Your task to perform on an android device: toggle notifications settings in the gmail app Image 0: 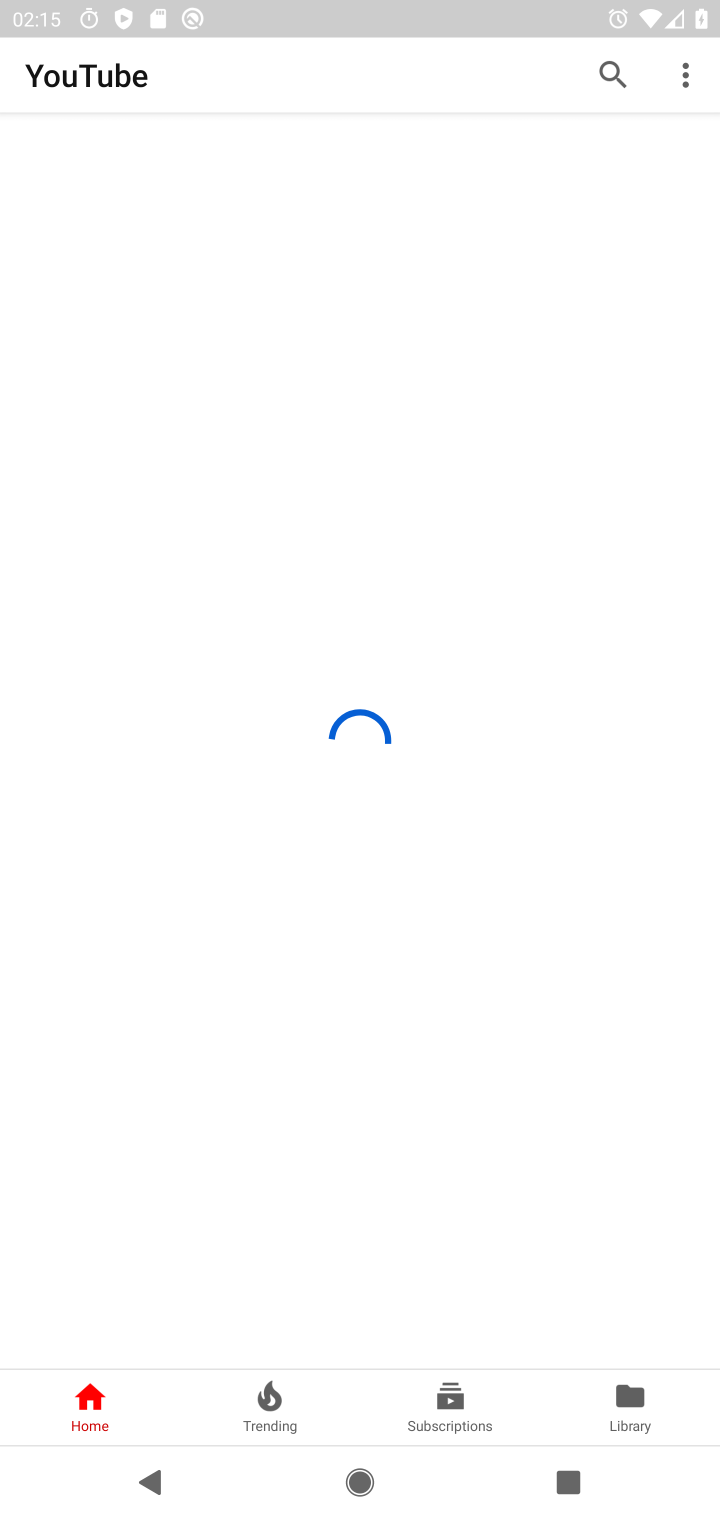
Step 0: press home button
Your task to perform on an android device: toggle notifications settings in the gmail app Image 1: 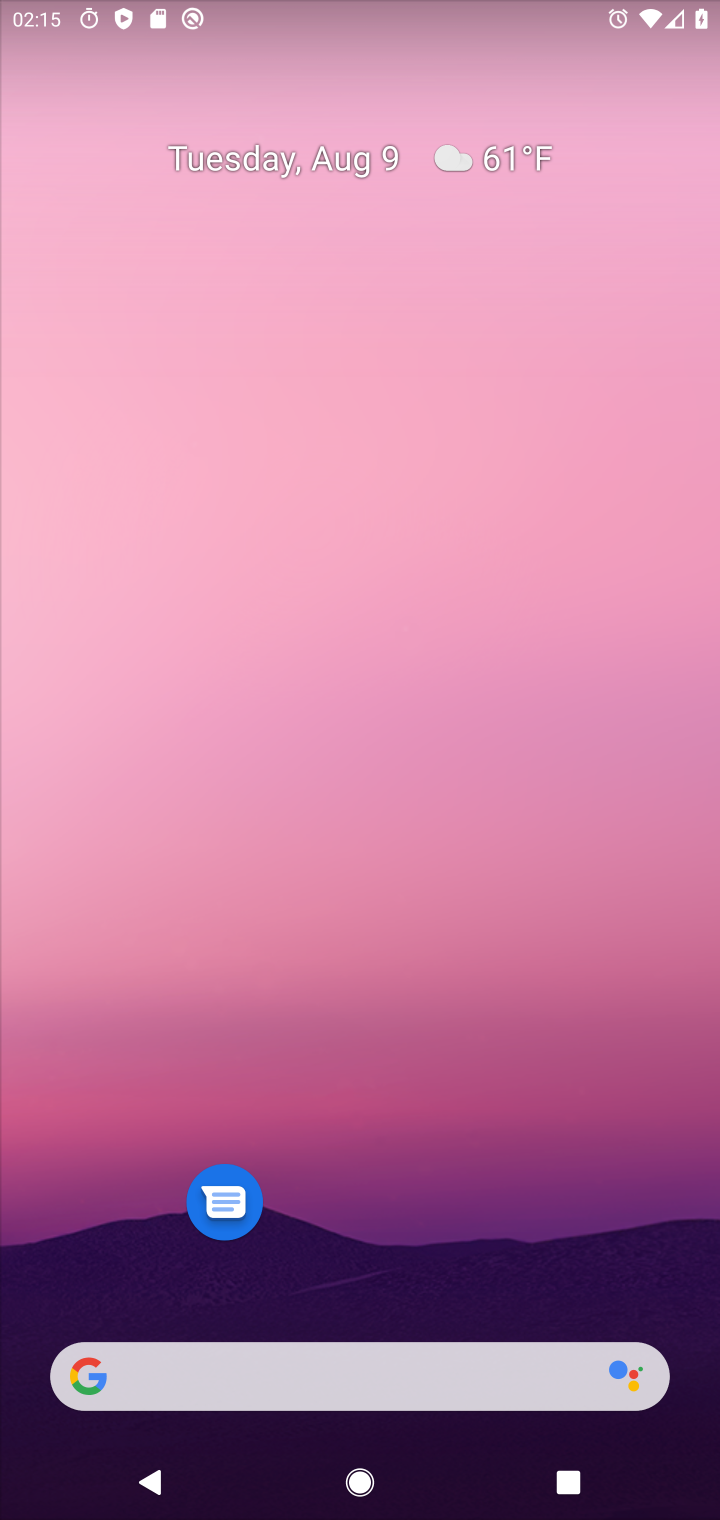
Step 1: press home button
Your task to perform on an android device: toggle notifications settings in the gmail app Image 2: 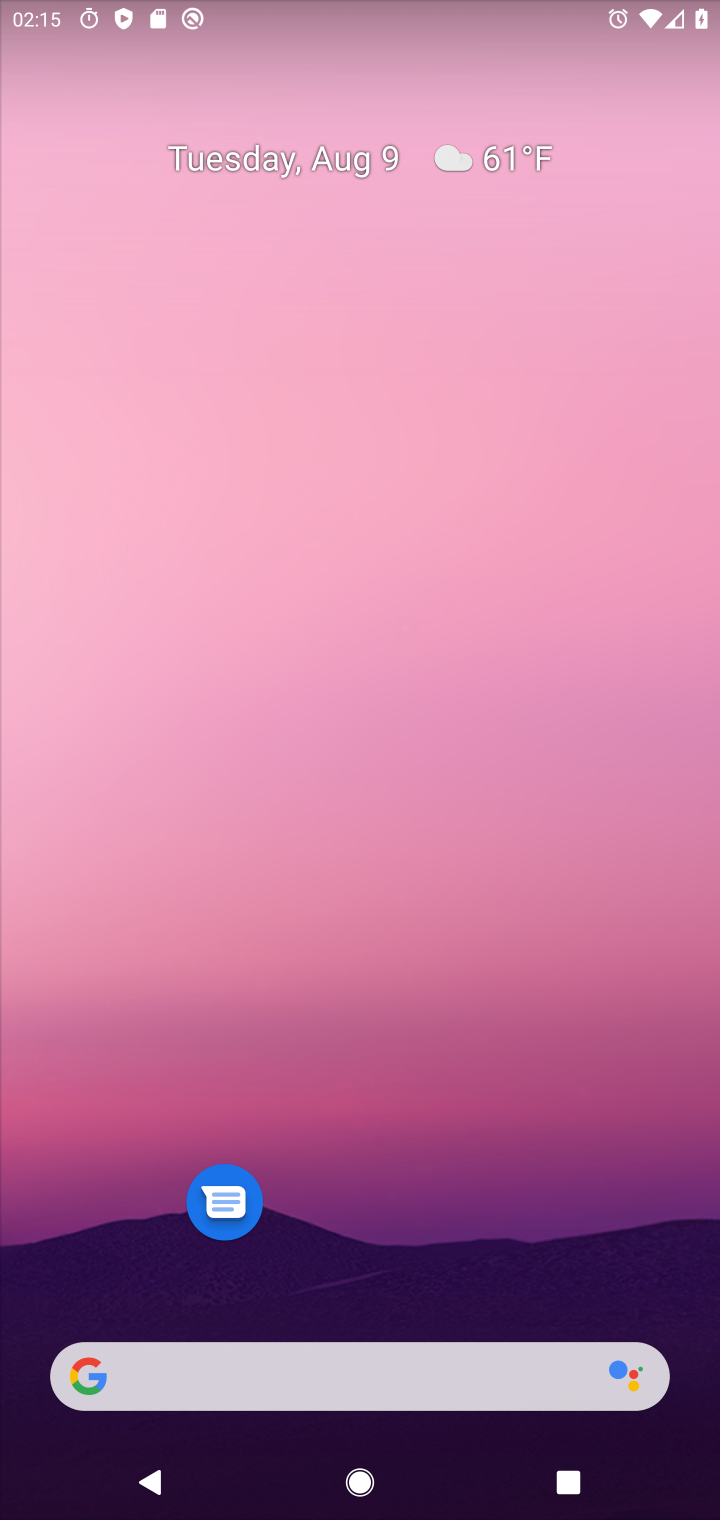
Step 2: drag from (325, 1348) to (353, 1096)
Your task to perform on an android device: toggle notifications settings in the gmail app Image 3: 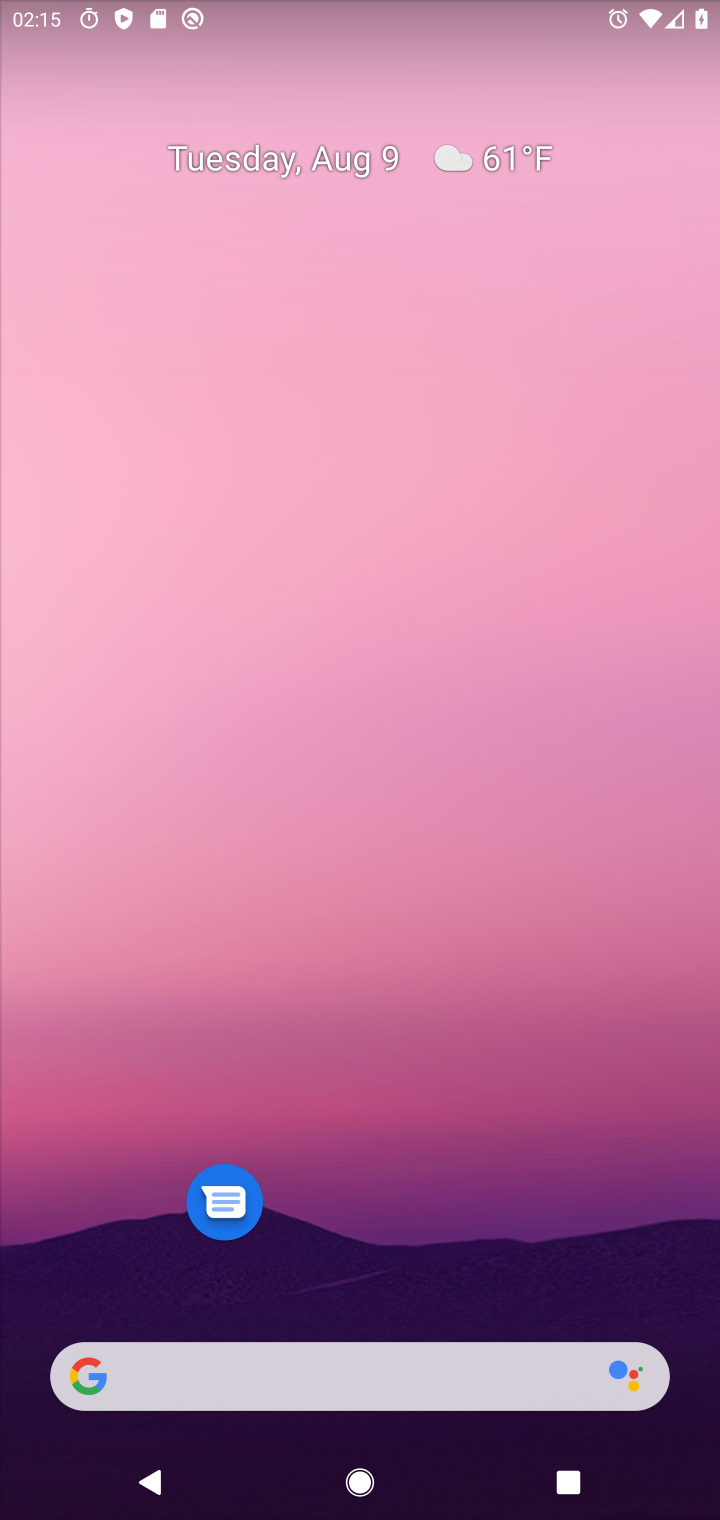
Step 3: drag from (319, 1365) to (291, 38)
Your task to perform on an android device: toggle notifications settings in the gmail app Image 4: 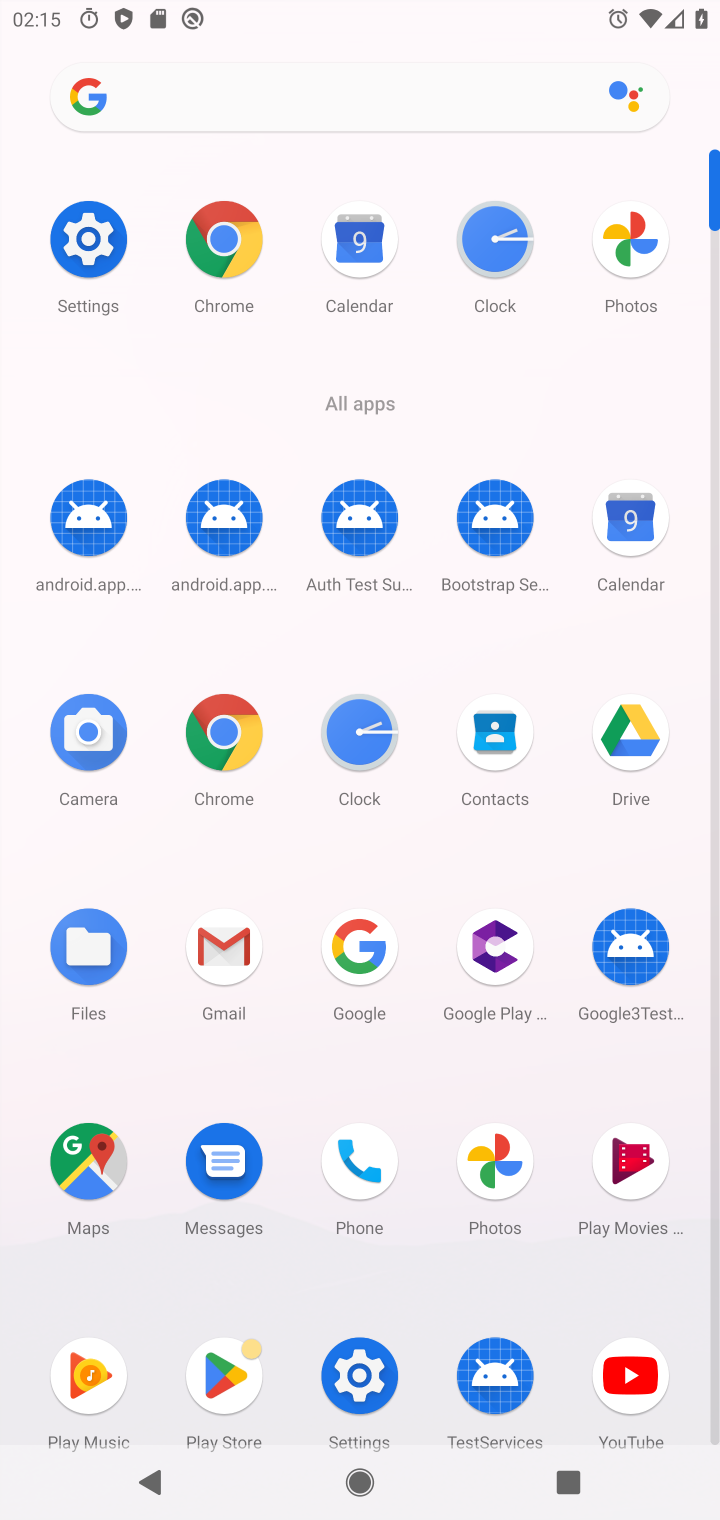
Step 4: click (215, 961)
Your task to perform on an android device: toggle notifications settings in the gmail app Image 5: 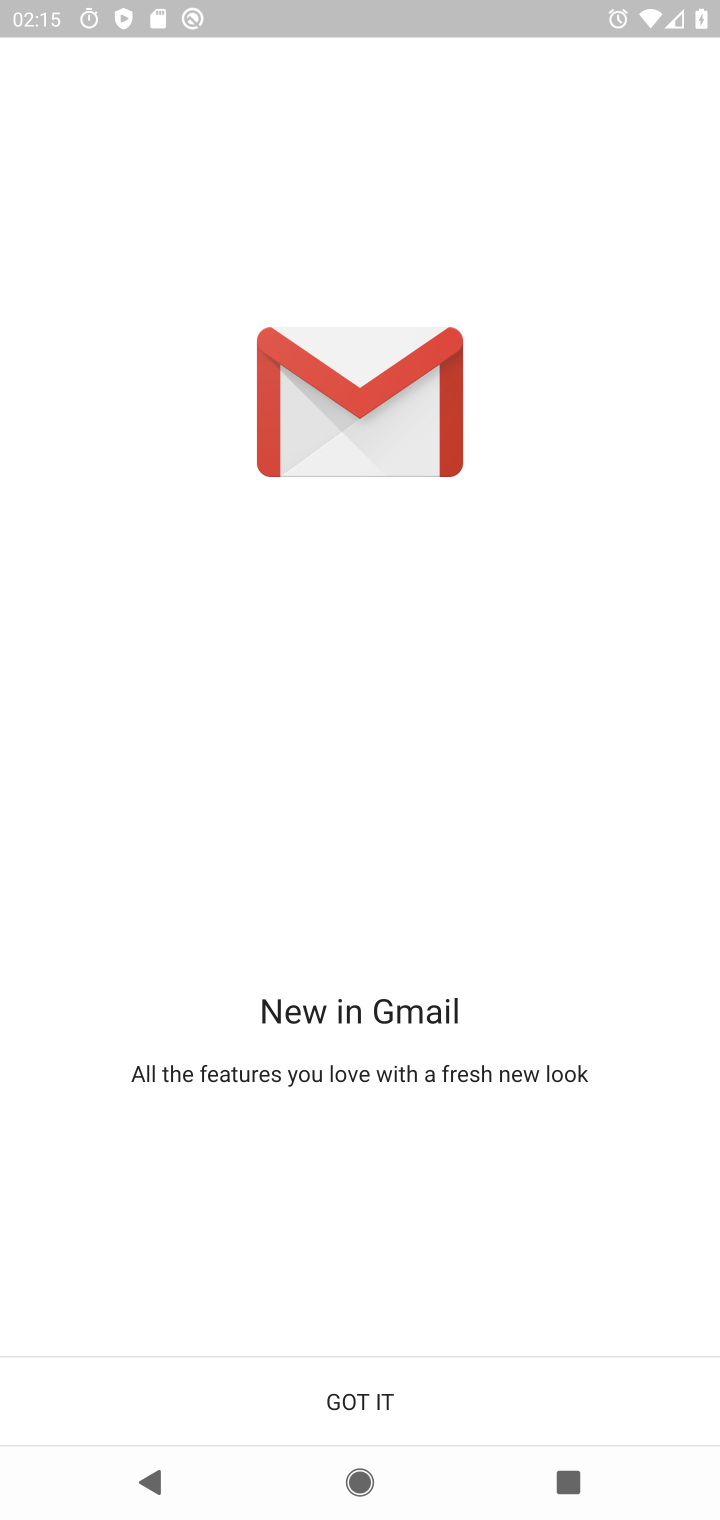
Step 5: click (292, 1406)
Your task to perform on an android device: toggle notifications settings in the gmail app Image 6: 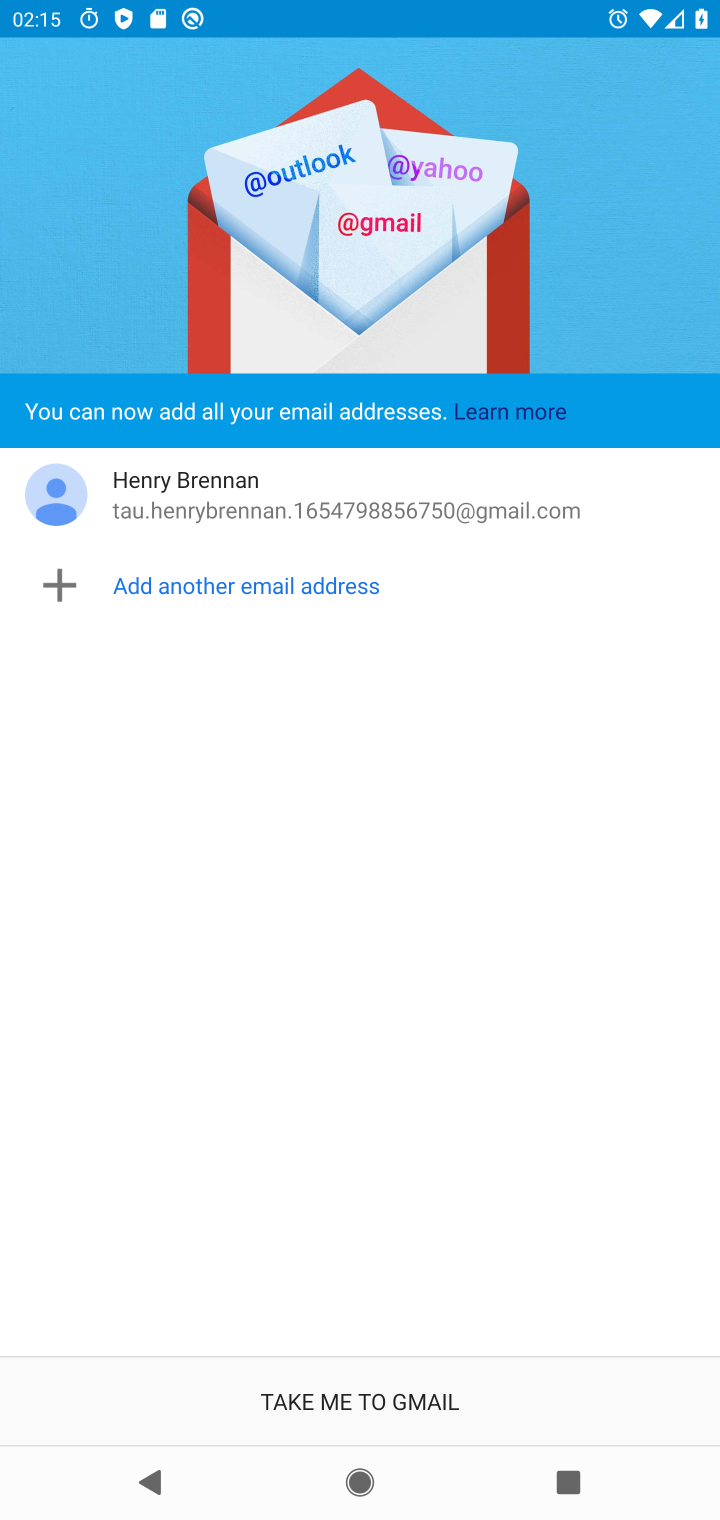
Step 6: click (292, 1406)
Your task to perform on an android device: toggle notifications settings in the gmail app Image 7: 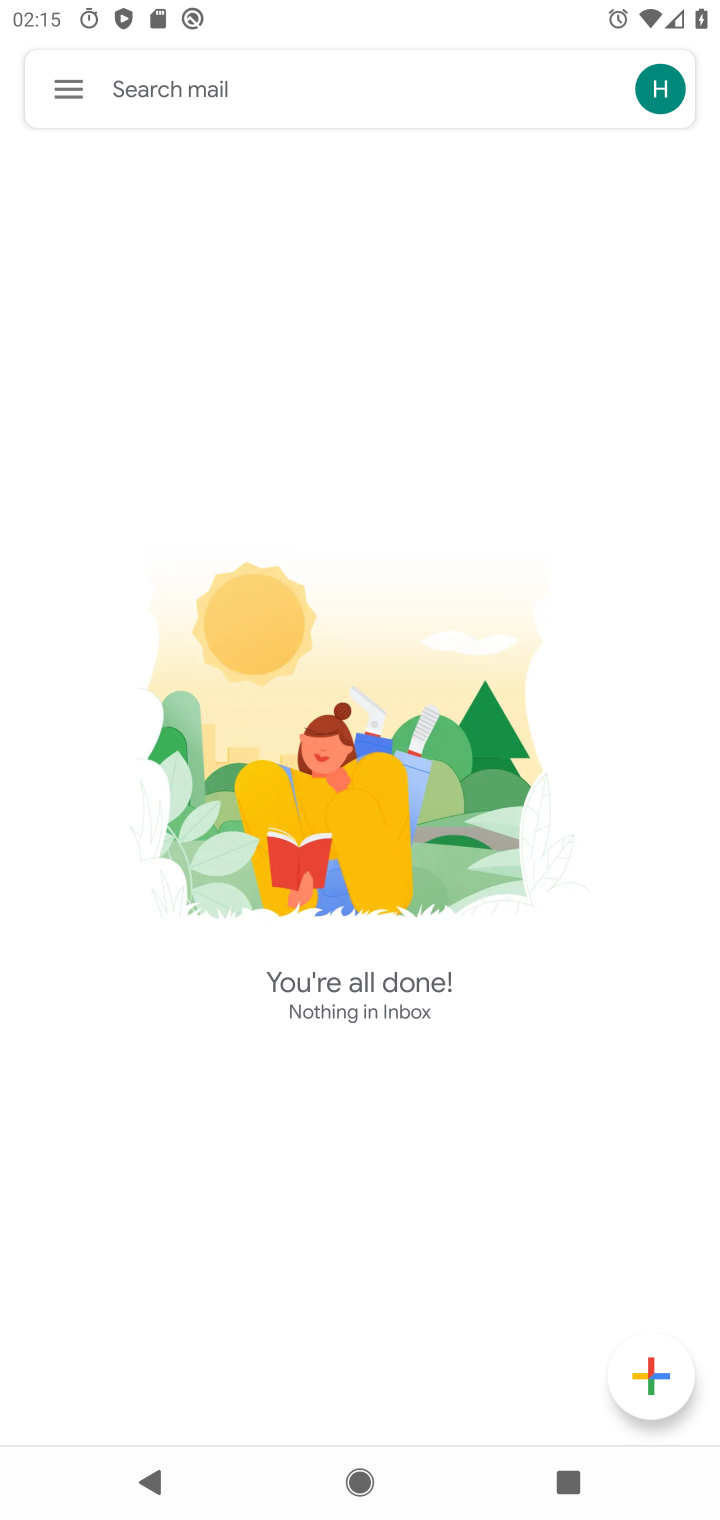
Step 7: click (74, 70)
Your task to perform on an android device: toggle notifications settings in the gmail app Image 8: 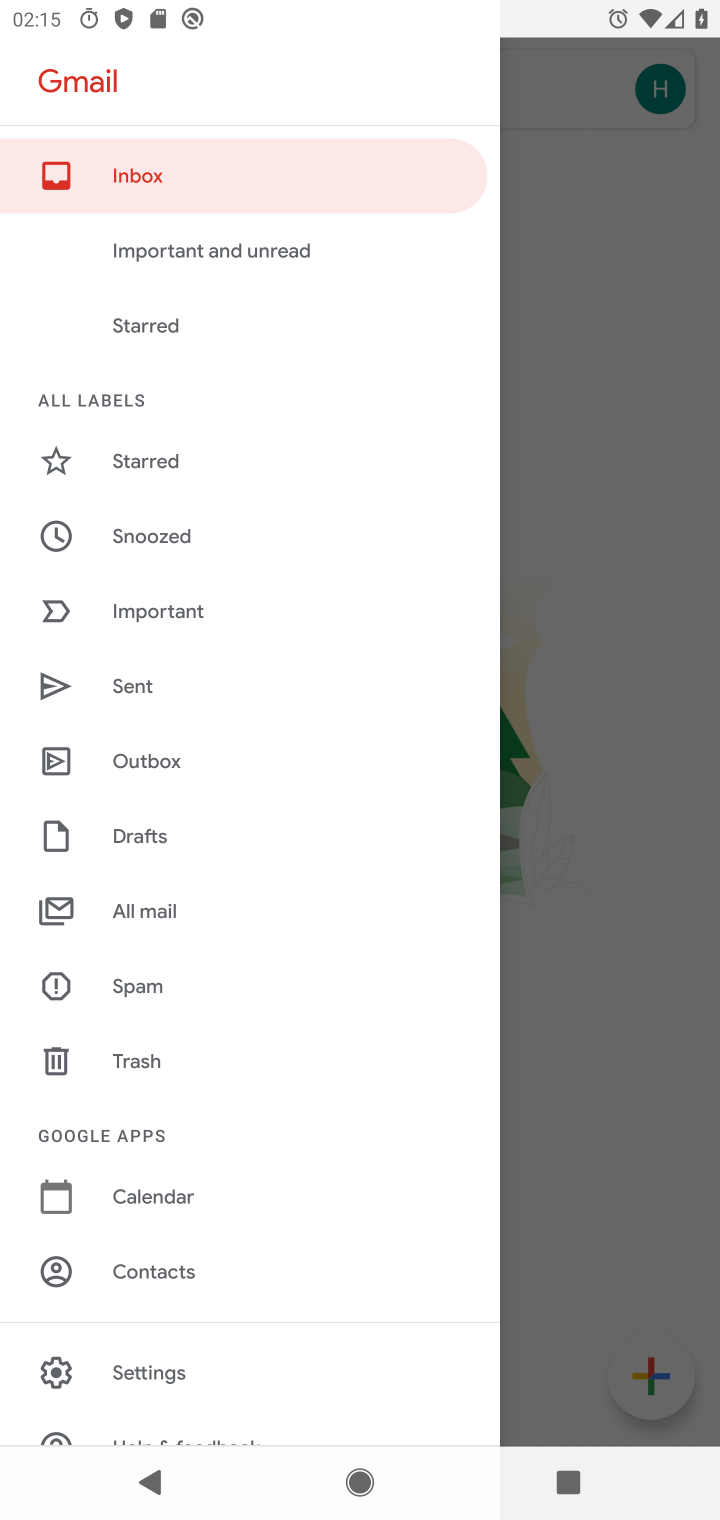
Step 8: click (102, 1366)
Your task to perform on an android device: toggle notifications settings in the gmail app Image 9: 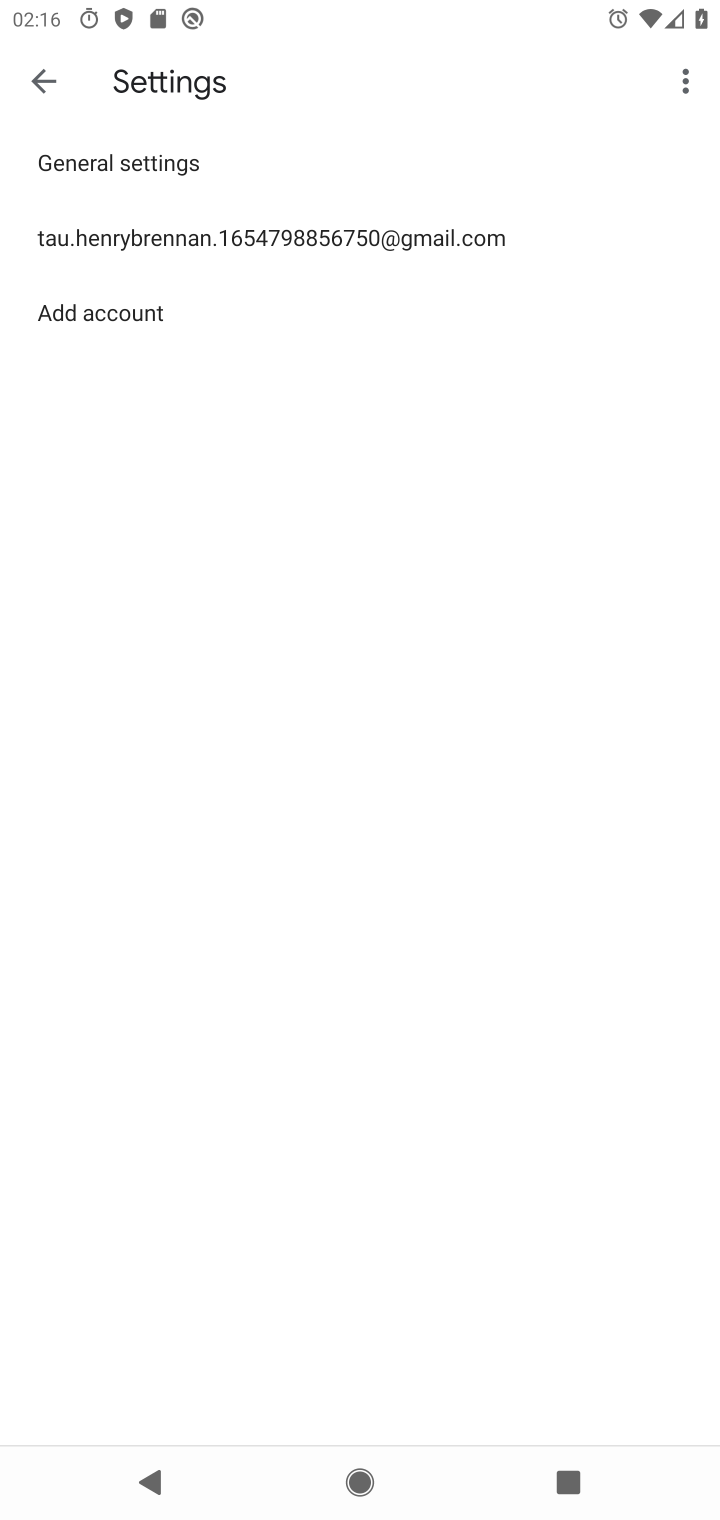
Step 9: click (441, 220)
Your task to perform on an android device: toggle notifications settings in the gmail app Image 10: 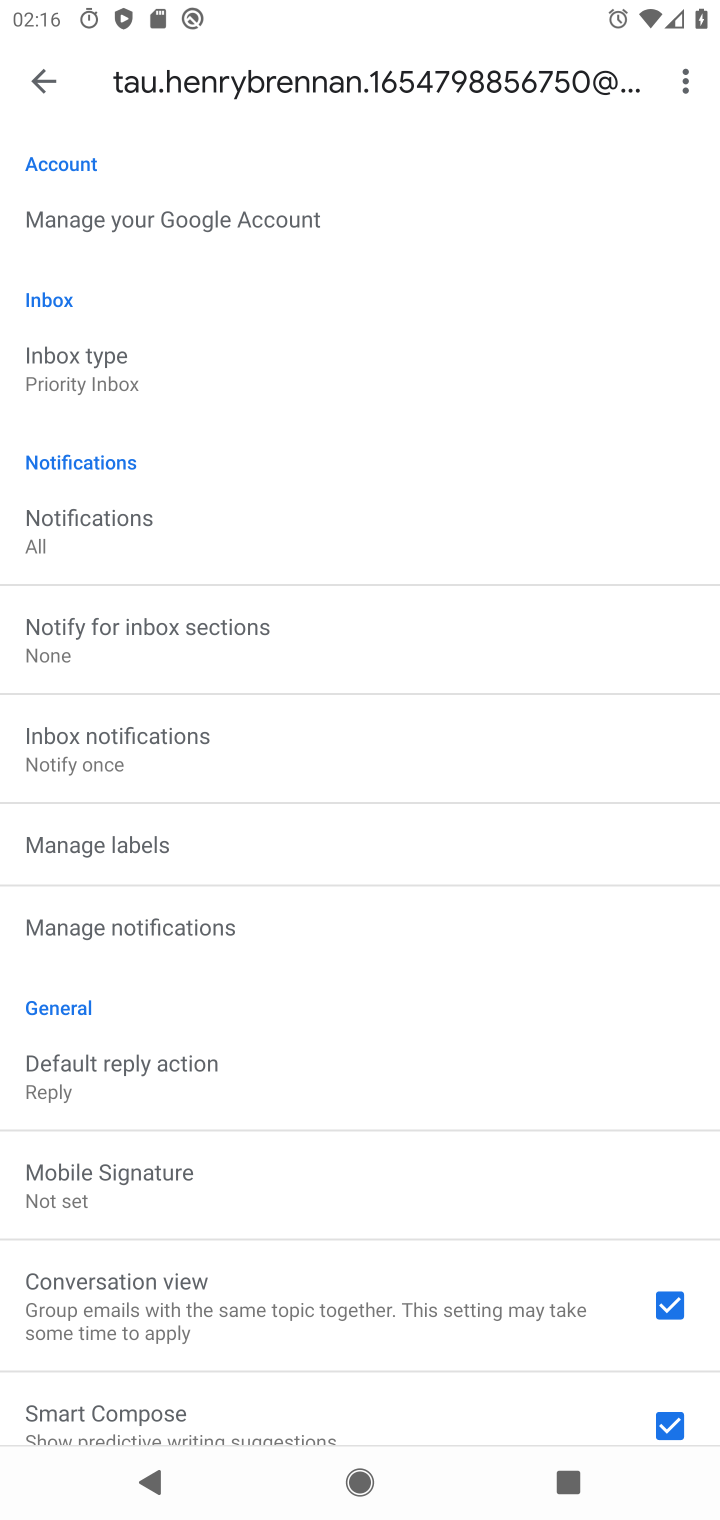
Step 10: click (186, 920)
Your task to perform on an android device: toggle notifications settings in the gmail app Image 11: 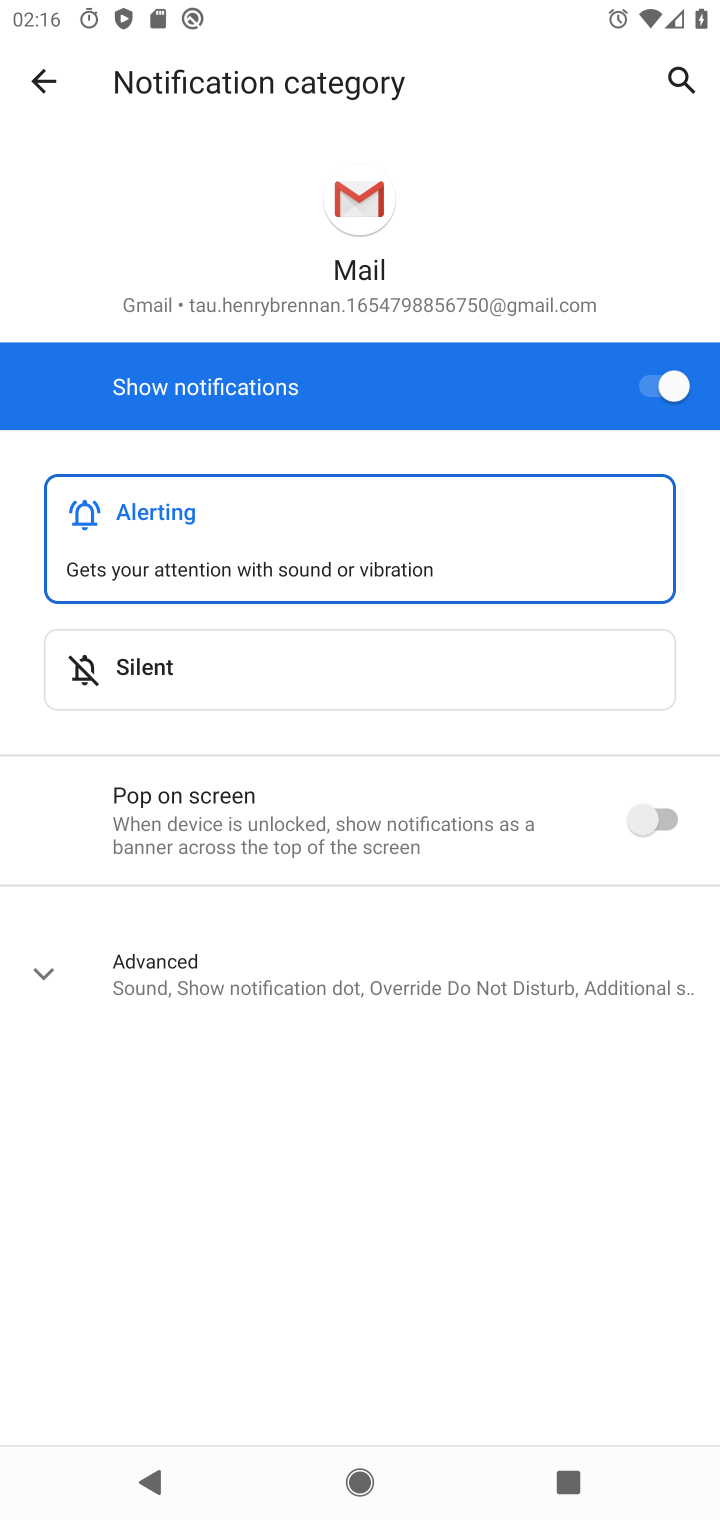
Step 11: click (645, 386)
Your task to perform on an android device: toggle notifications settings in the gmail app Image 12: 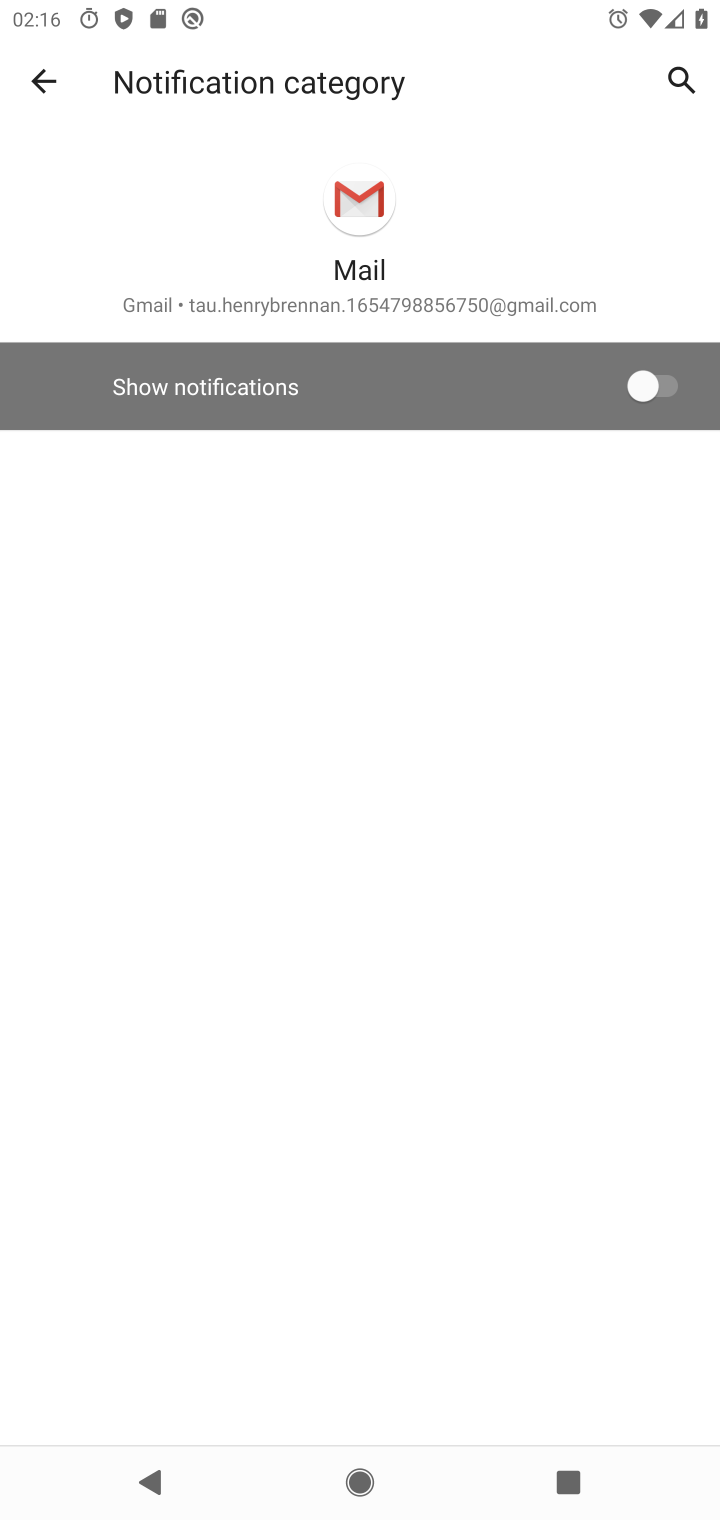
Step 12: task complete